Your task to perform on an android device: Go to sound settings Image 0: 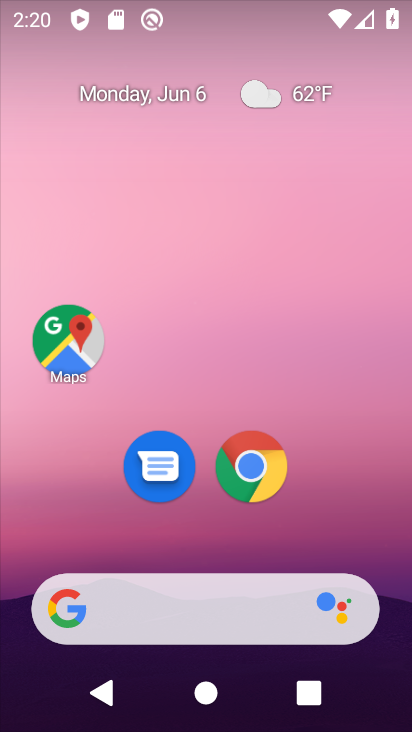
Step 0: drag from (384, 563) to (292, 99)
Your task to perform on an android device: Go to sound settings Image 1: 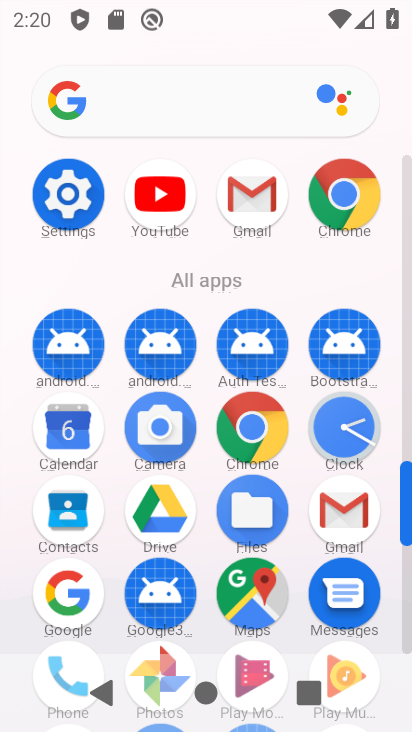
Step 1: click (406, 640)
Your task to perform on an android device: Go to sound settings Image 2: 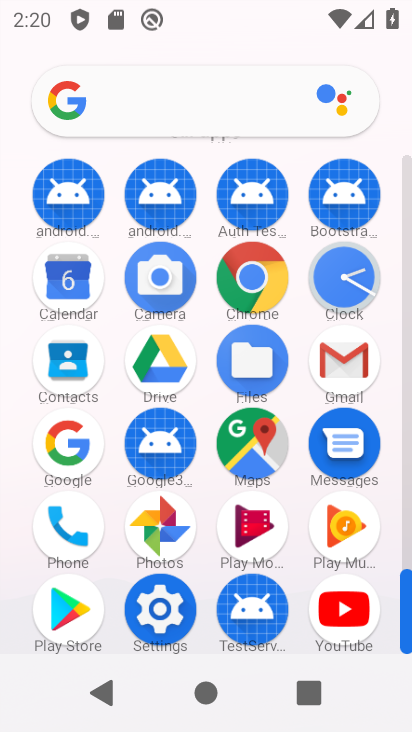
Step 2: click (172, 622)
Your task to perform on an android device: Go to sound settings Image 3: 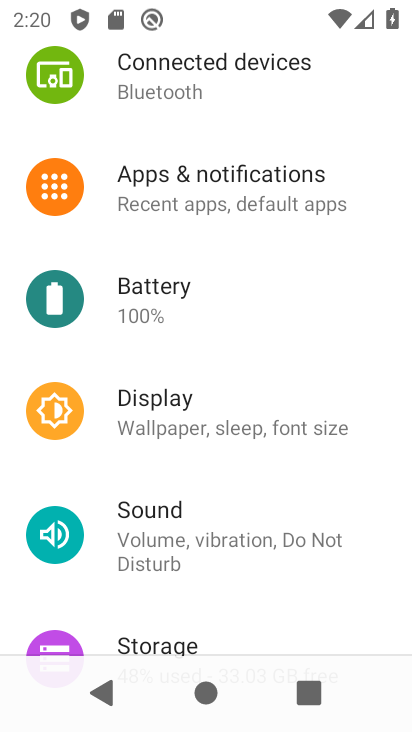
Step 3: click (229, 508)
Your task to perform on an android device: Go to sound settings Image 4: 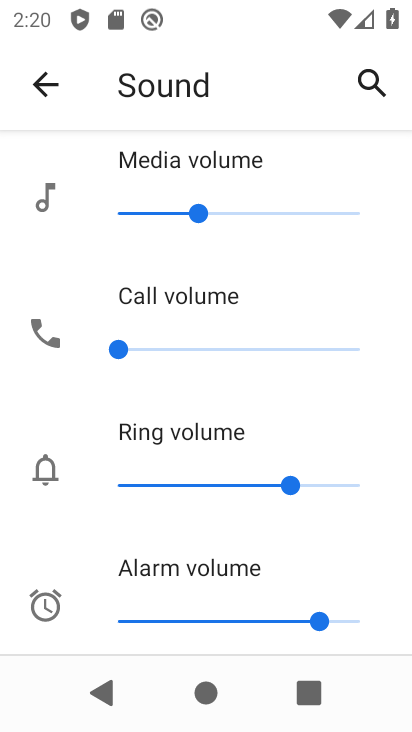
Step 4: task complete